Your task to perform on an android device: add a contact Image 0: 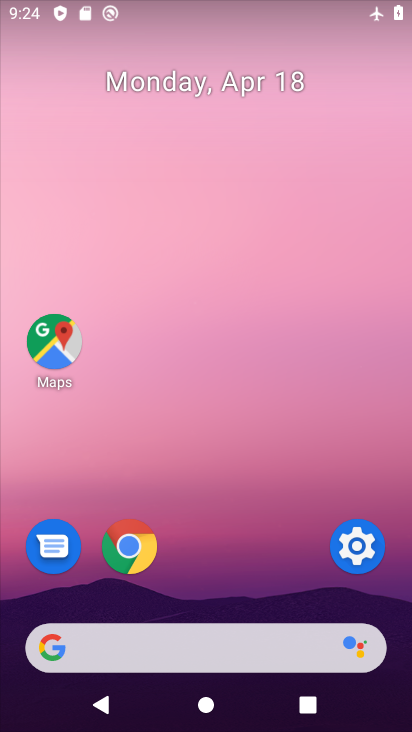
Step 0: drag from (237, 571) to (269, 138)
Your task to perform on an android device: add a contact Image 1: 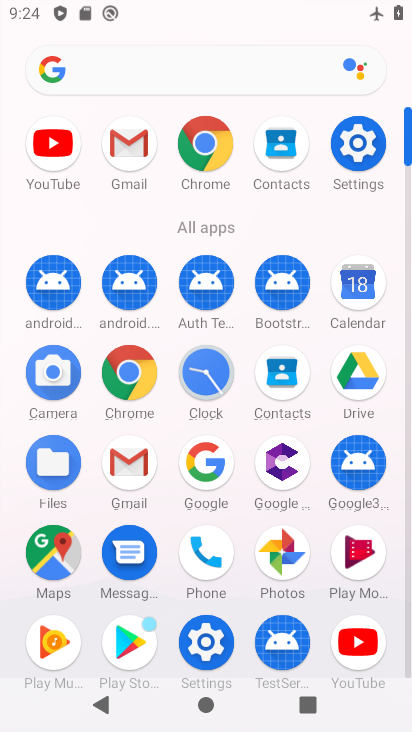
Step 1: click (294, 386)
Your task to perform on an android device: add a contact Image 2: 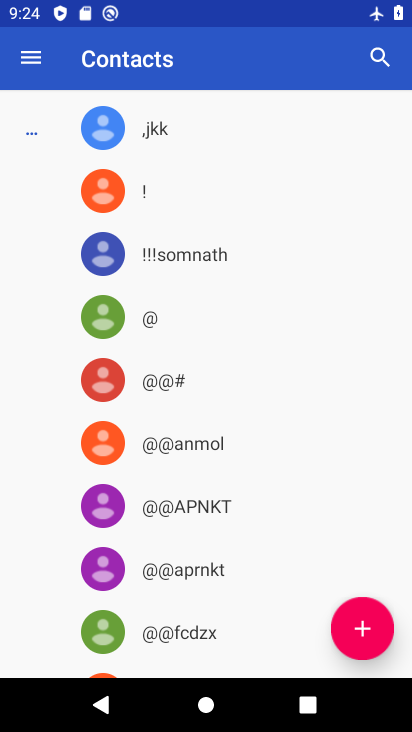
Step 2: click (359, 632)
Your task to perform on an android device: add a contact Image 3: 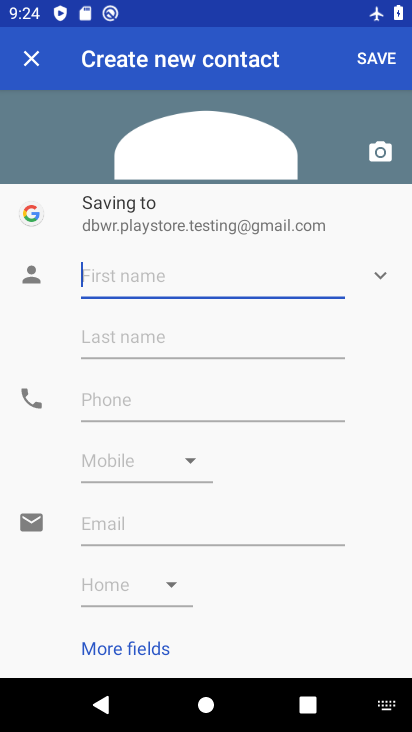
Step 3: click (181, 271)
Your task to perform on an android device: add a contact Image 4: 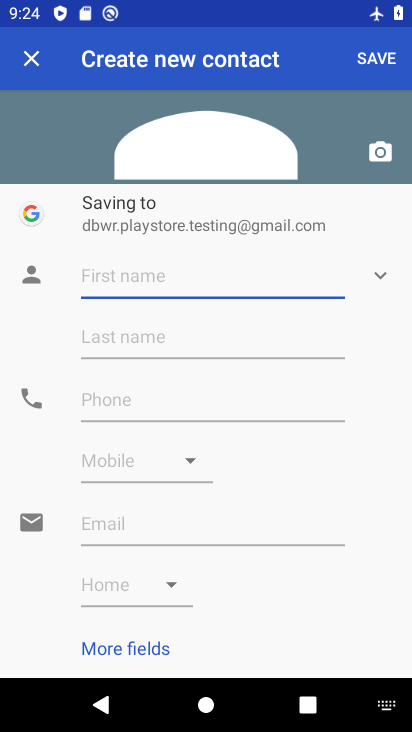
Step 4: type "PC"
Your task to perform on an android device: add a contact Image 5: 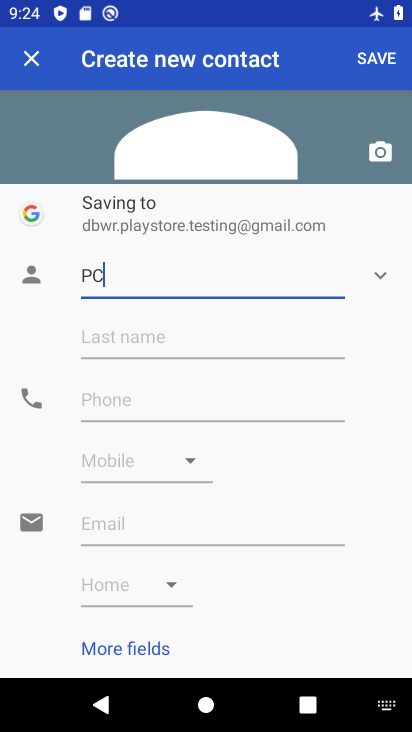
Step 5: click (131, 410)
Your task to perform on an android device: add a contact Image 6: 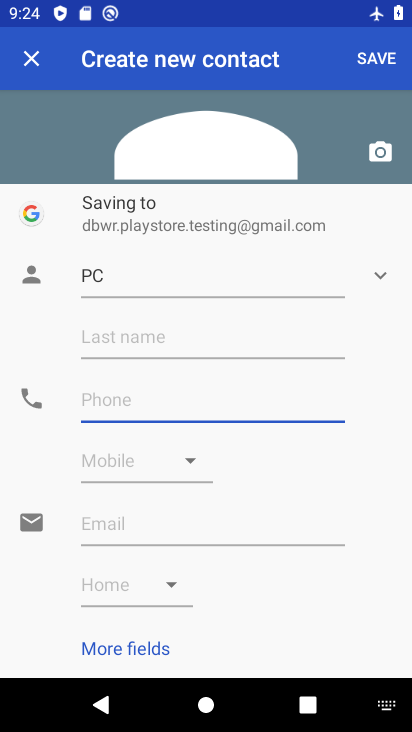
Step 6: type "243567"
Your task to perform on an android device: add a contact Image 7: 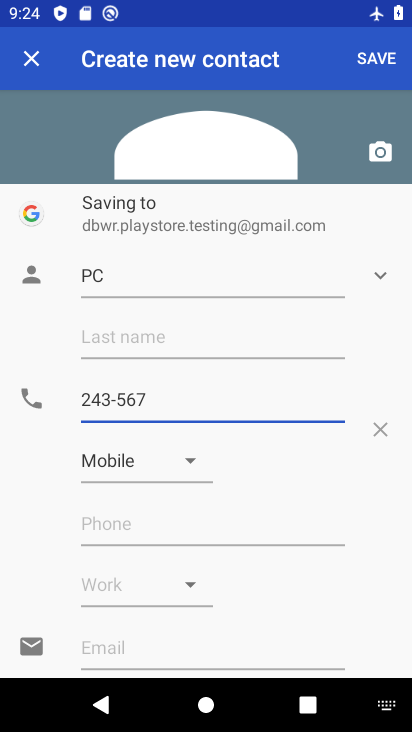
Step 7: click (390, 51)
Your task to perform on an android device: add a contact Image 8: 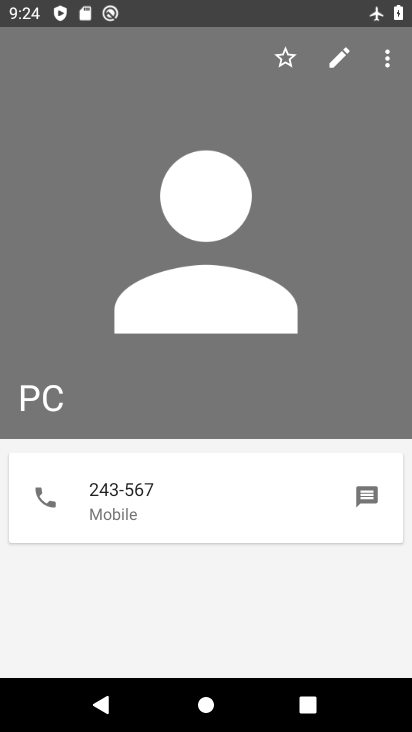
Step 8: task complete